Your task to perform on an android device: Go to sound settings Image 0: 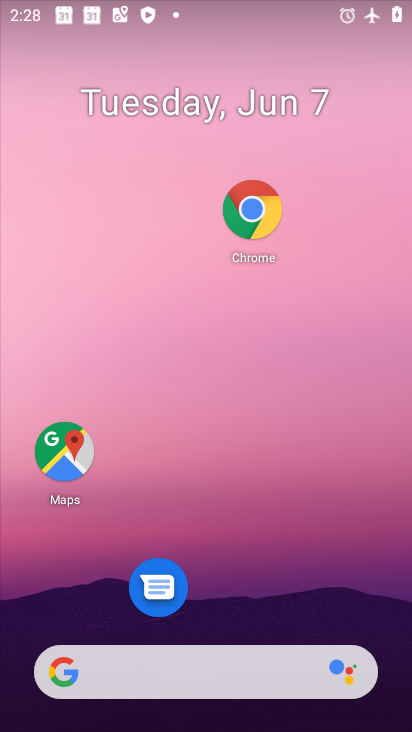
Step 0: drag from (185, 635) to (233, 88)
Your task to perform on an android device: Go to sound settings Image 1: 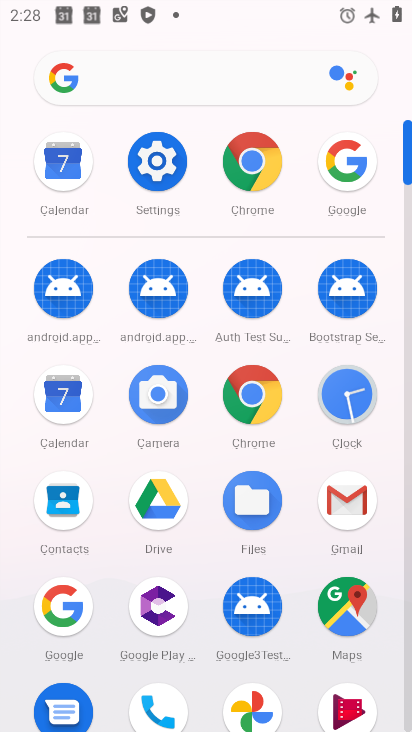
Step 1: click (160, 162)
Your task to perform on an android device: Go to sound settings Image 2: 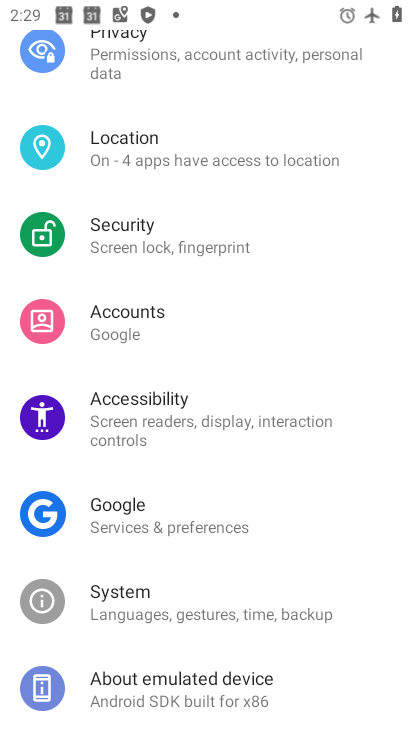
Step 2: drag from (221, 346) to (193, 722)
Your task to perform on an android device: Go to sound settings Image 3: 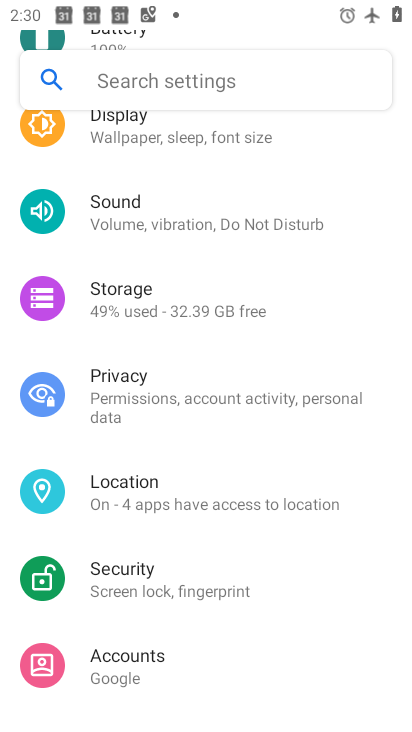
Step 3: click (179, 206)
Your task to perform on an android device: Go to sound settings Image 4: 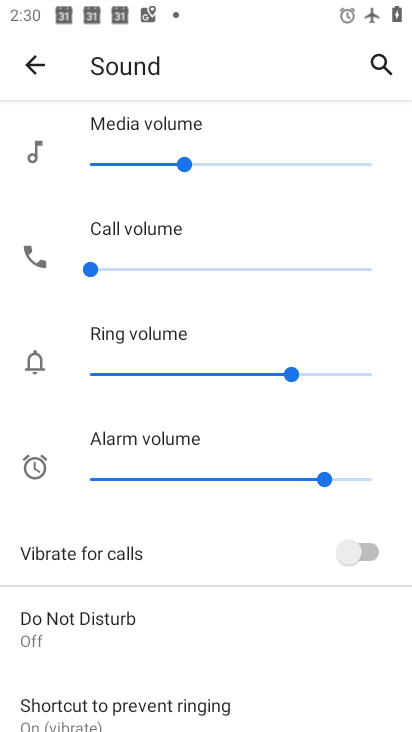
Step 4: task complete